Your task to perform on an android device: Search for seafood restaurants on Google Maps Image 0: 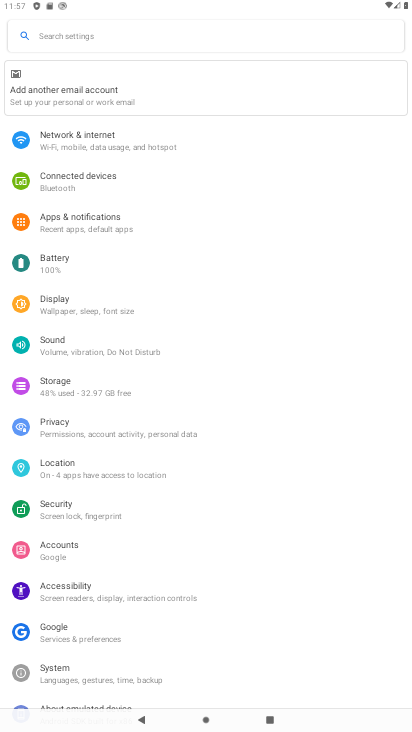
Step 0: press home button
Your task to perform on an android device: Search for seafood restaurants on Google Maps Image 1: 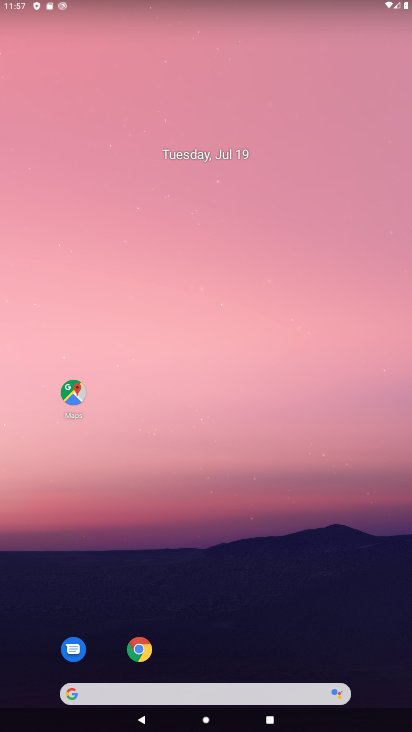
Step 1: click (74, 394)
Your task to perform on an android device: Search for seafood restaurants on Google Maps Image 2: 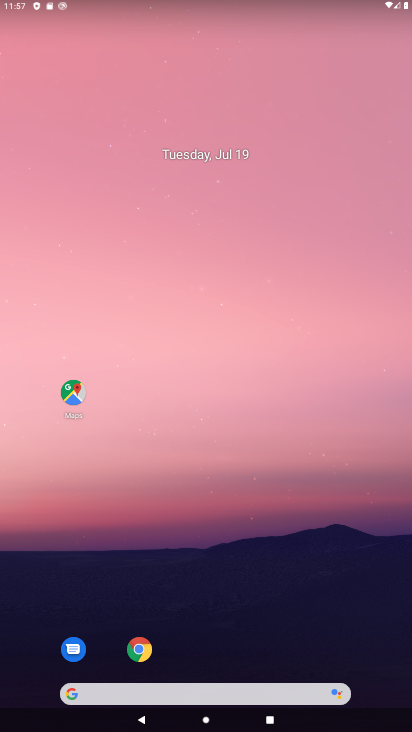
Step 2: click (74, 394)
Your task to perform on an android device: Search for seafood restaurants on Google Maps Image 3: 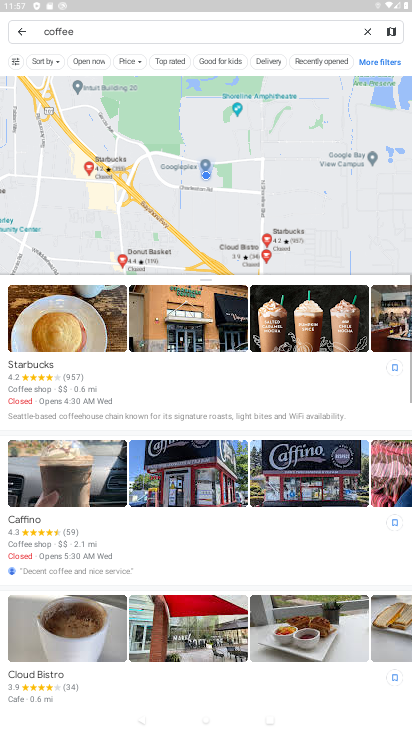
Step 3: click (366, 32)
Your task to perform on an android device: Search for seafood restaurants on Google Maps Image 4: 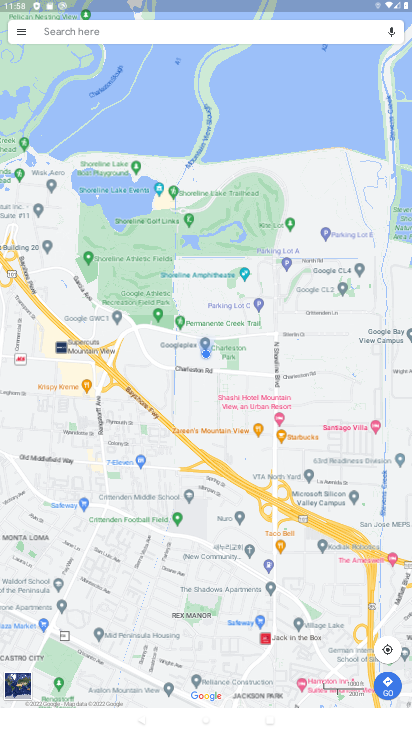
Step 4: click (154, 32)
Your task to perform on an android device: Search for seafood restaurants on Google Maps Image 5: 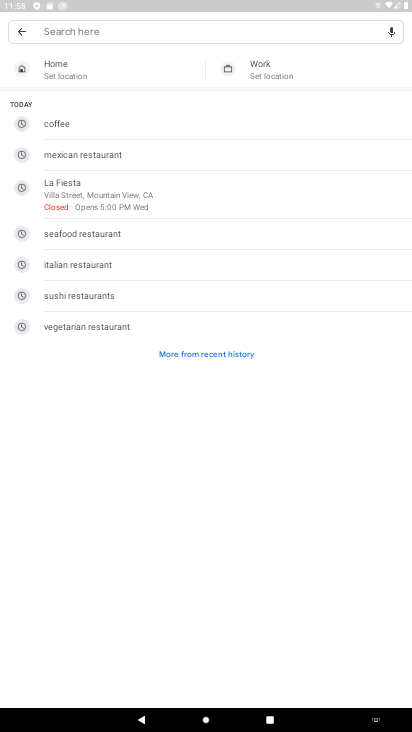
Step 5: click (140, 226)
Your task to perform on an android device: Search for seafood restaurants on Google Maps Image 6: 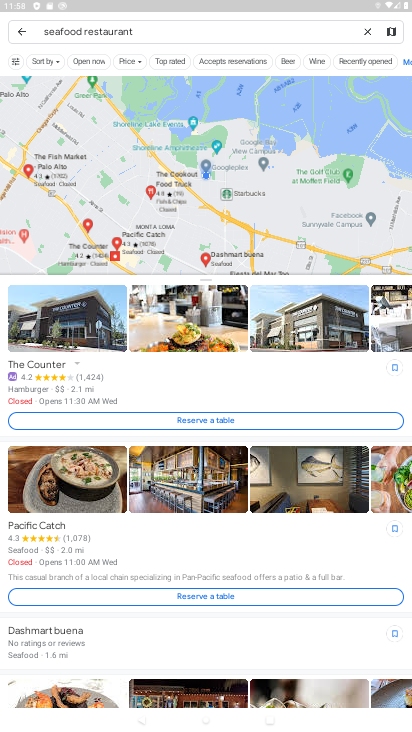
Step 6: task complete